Your task to perform on an android device: Set the phone to "Do not disturb". Image 0: 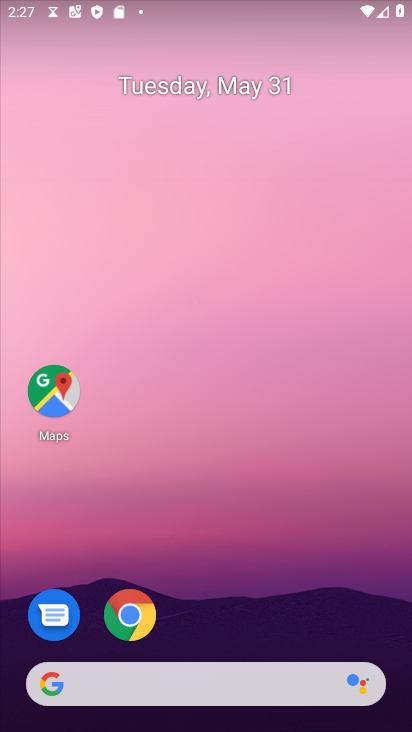
Step 0: drag from (222, 673) to (160, 230)
Your task to perform on an android device: Set the phone to "Do not disturb". Image 1: 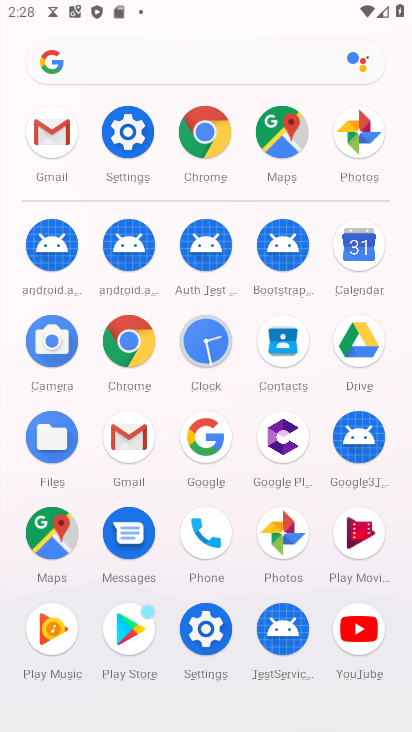
Step 1: click (123, 123)
Your task to perform on an android device: Set the phone to "Do not disturb". Image 2: 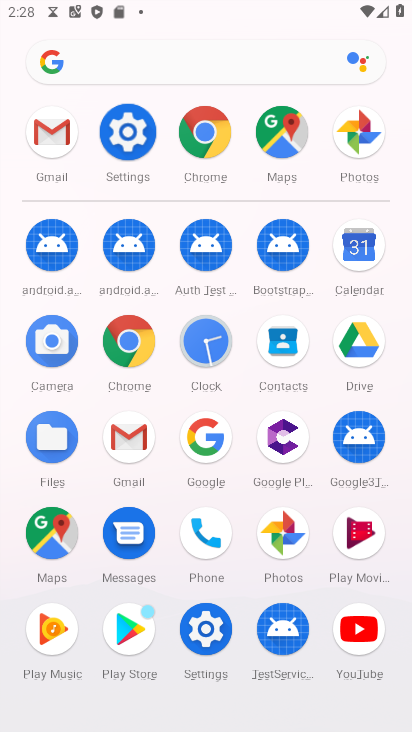
Step 2: click (123, 123)
Your task to perform on an android device: Set the phone to "Do not disturb". Image 3: 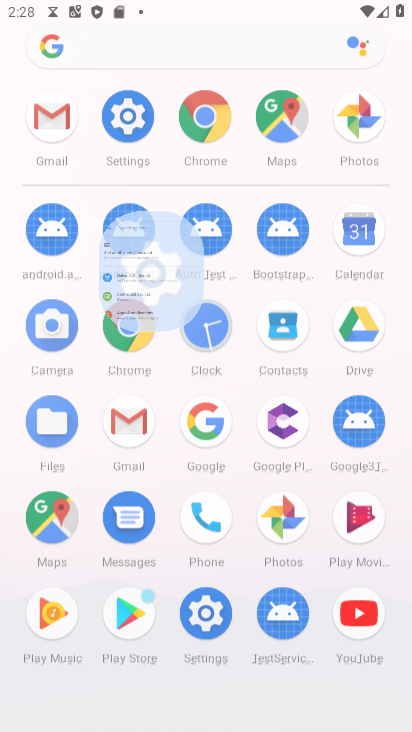
Step 3: click (123, 123)
Your task to perform on an android device: Set the phone to "Do not disturb". Image 4: 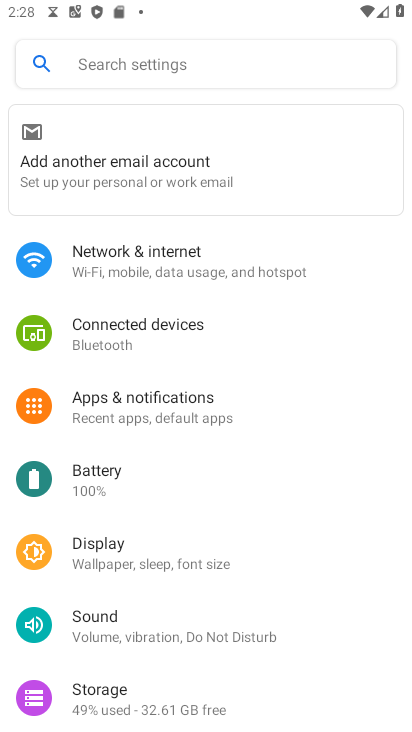
Step 4: click (119, 643)
Your task to perform on an android device: Set the phone to "Do not disturb". Image 5: 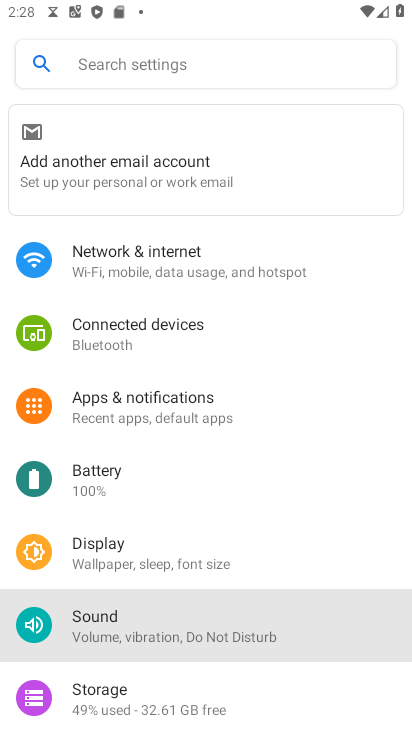
Step 5: click (119, 643)
Your task to perform on an android device: Set the phone to "Do not disturb". Image 6: 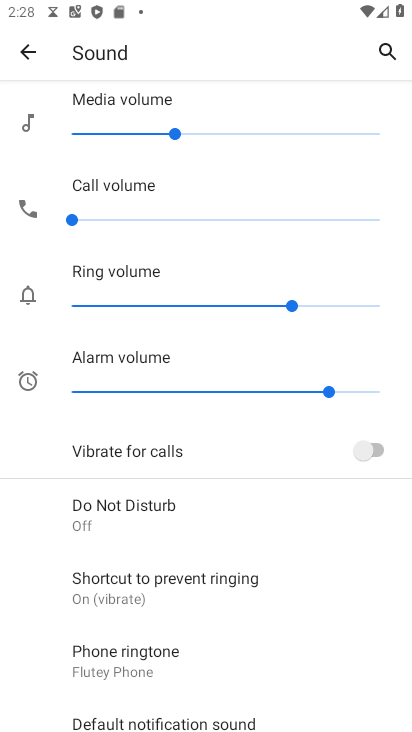
Step 6: click (101, 505)
Your task to perform on an android device: Set the phone to "Do not disturb". Image 7: 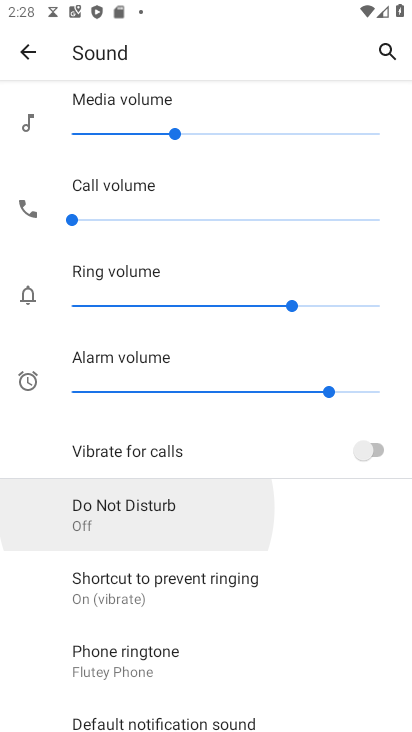
Step 7: click (101, 505)
Your task to perform on an android device: Set the phone to "Do not disturb". Image 8: 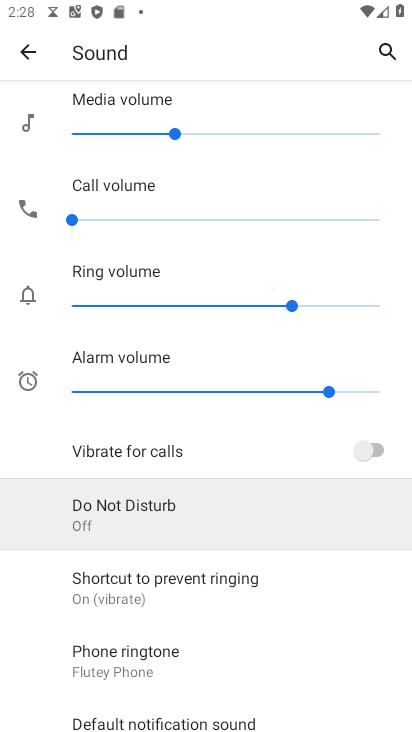
Step 8: click (101, 505)
Your task to perform on an android device: Set the phone to "Do not disturb". Image 9: 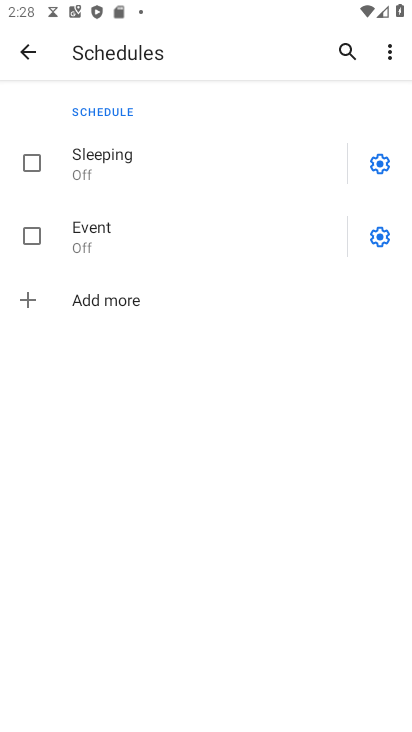
Step 9: click (28, 52)
Your task to perform on an android device: Set the phone to "Do not disturb". Image 10: 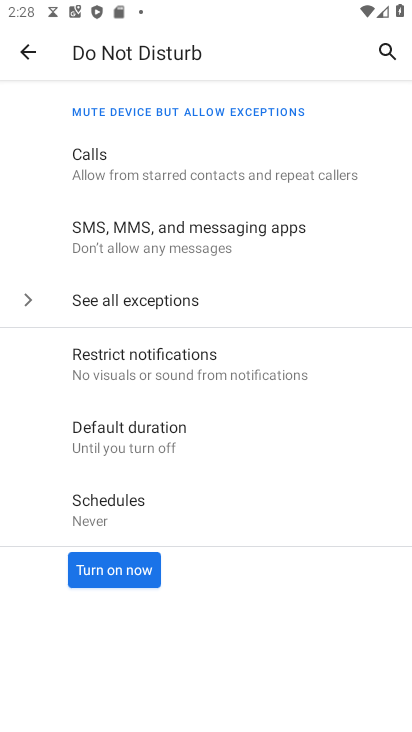
Step 10: click (121, 567)
Your task to perform on an android device: Set the phone to "Do not disturb". Image 11: 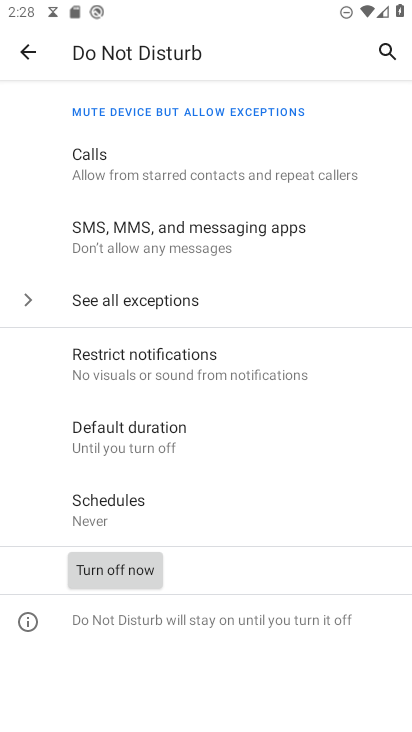
Step 11: task complete